Your task to perform on an android device: Is it going to rain tomorrow? Image 0: 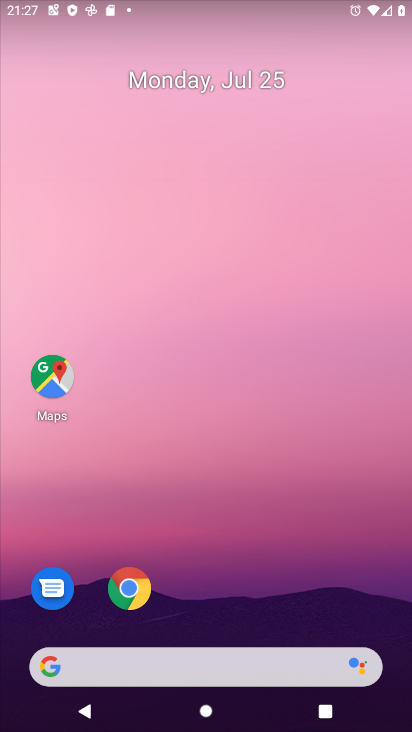
Step 0: drag from (249, 590) to (255, 164)
Your task to perform on an android device: Is it going to rain tomorrow? Image 1: 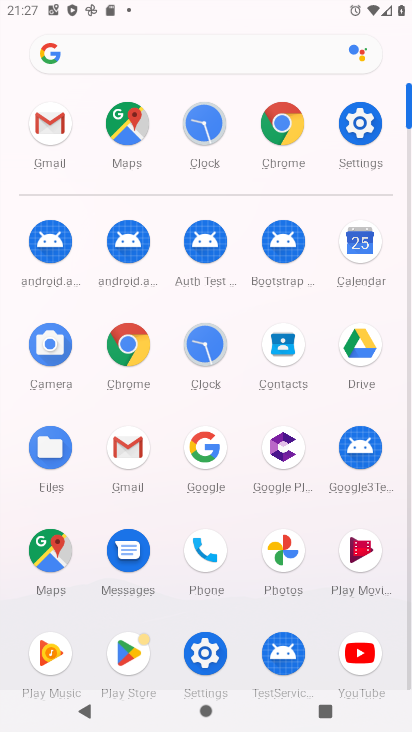
Step 1: click (202, 448)
Your task to perform on an android device: Is it going to rain tomorrow? Image 2: 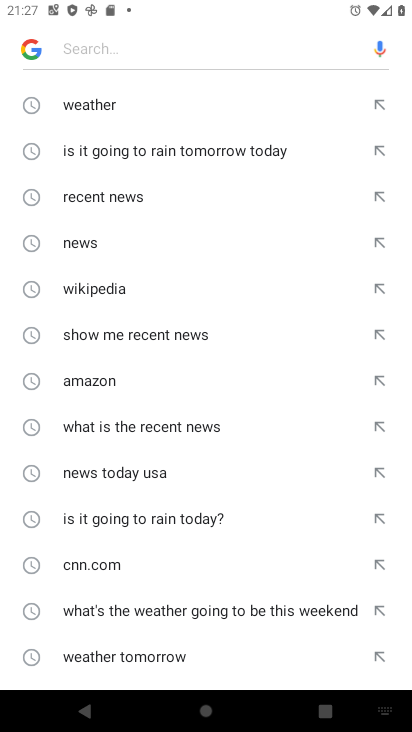
Step 2: click (123, 152)
Your task to perform on an android device: Is it going to rain tomorrow? Image 3: 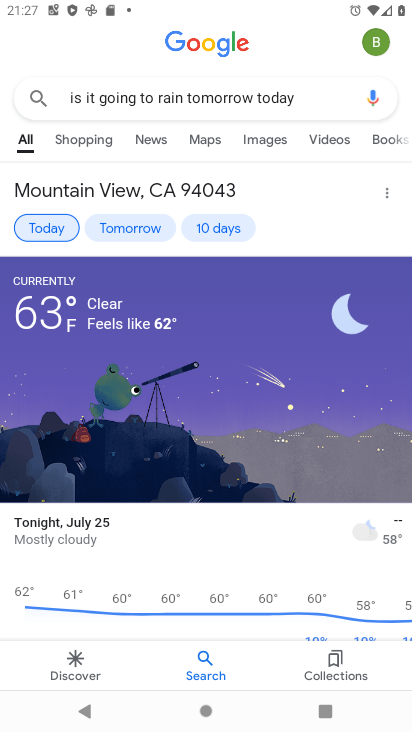
Step 3: click (127, 228)
Your task to perform on an android device: Is it going to rain tomorrow? Image 4: 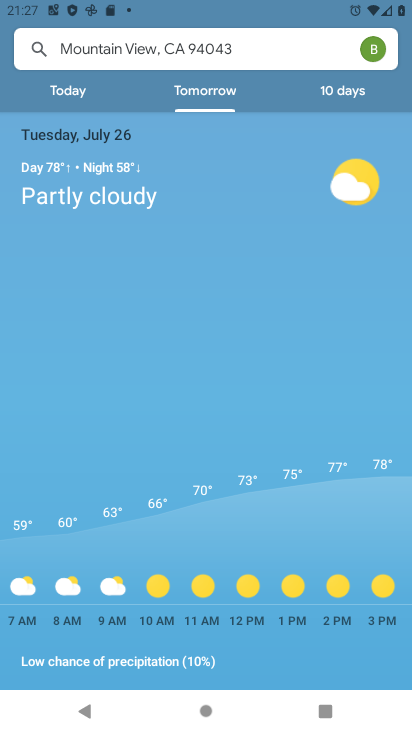
Step 4: task complete